Your task to perform on an android device: Open maps Image 0: 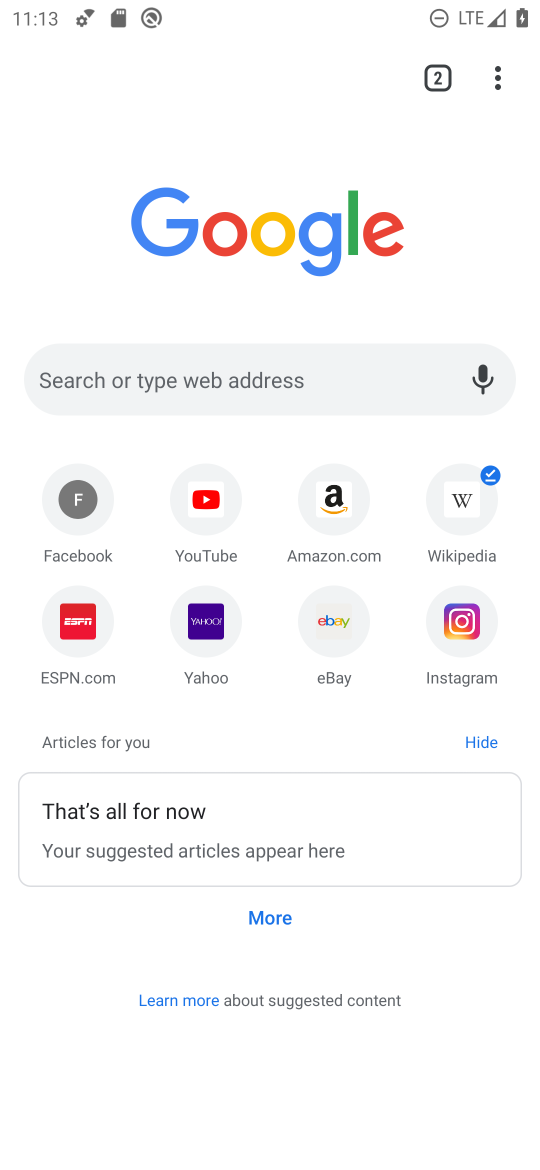
Step 0: press home button
Your task to perform on an android device: Open maps Image 1: 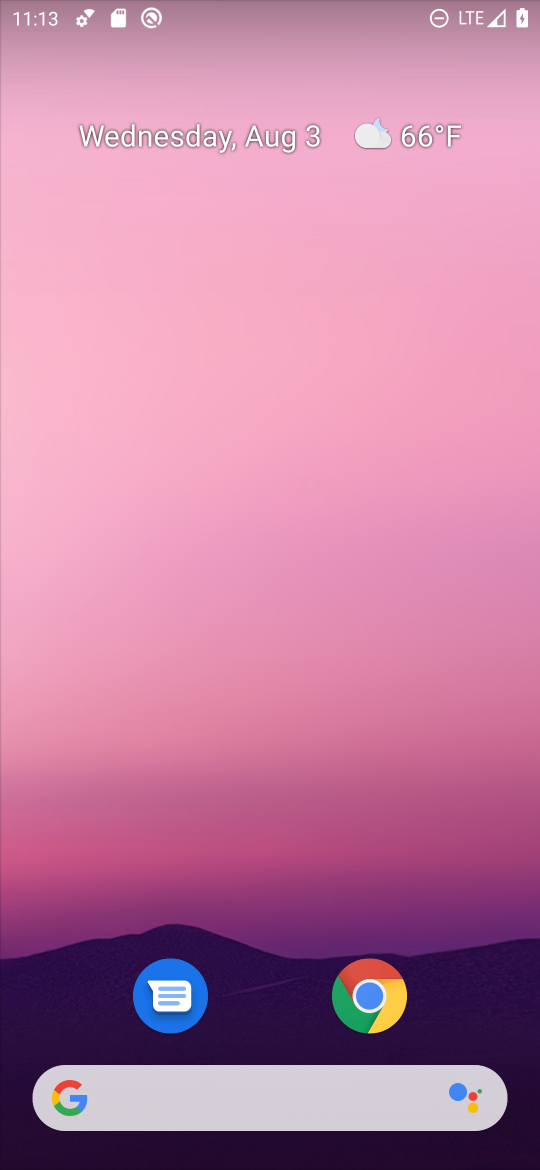
Step 1: drag from (301, 881) to (294, 10)
Your task to perform on an android device: Open maps Image 2: 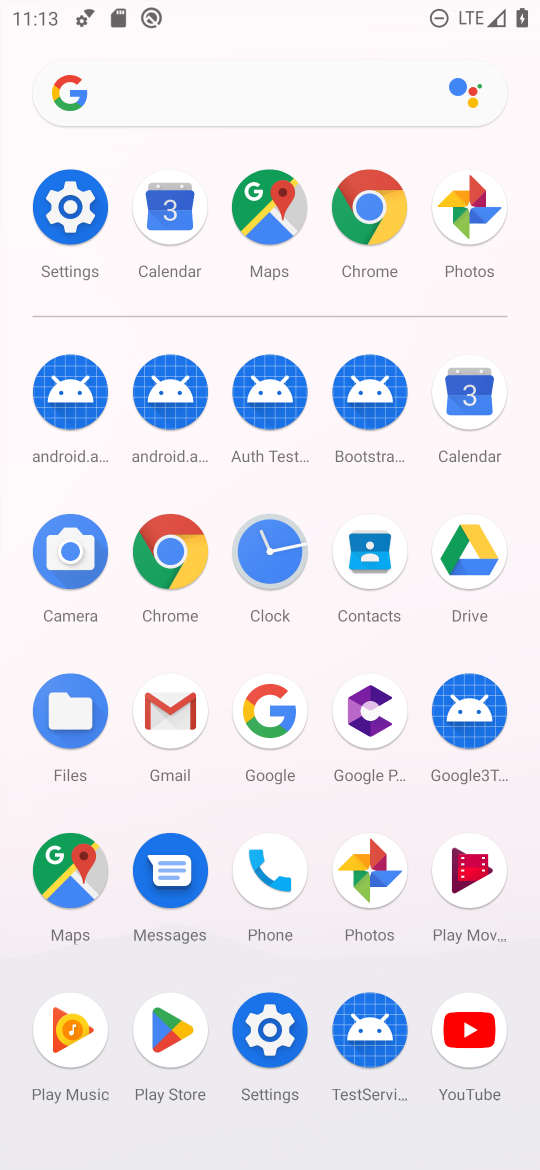
Step 2: click (284, 217)
Your task to perform on an android device: Open maps Image 3: 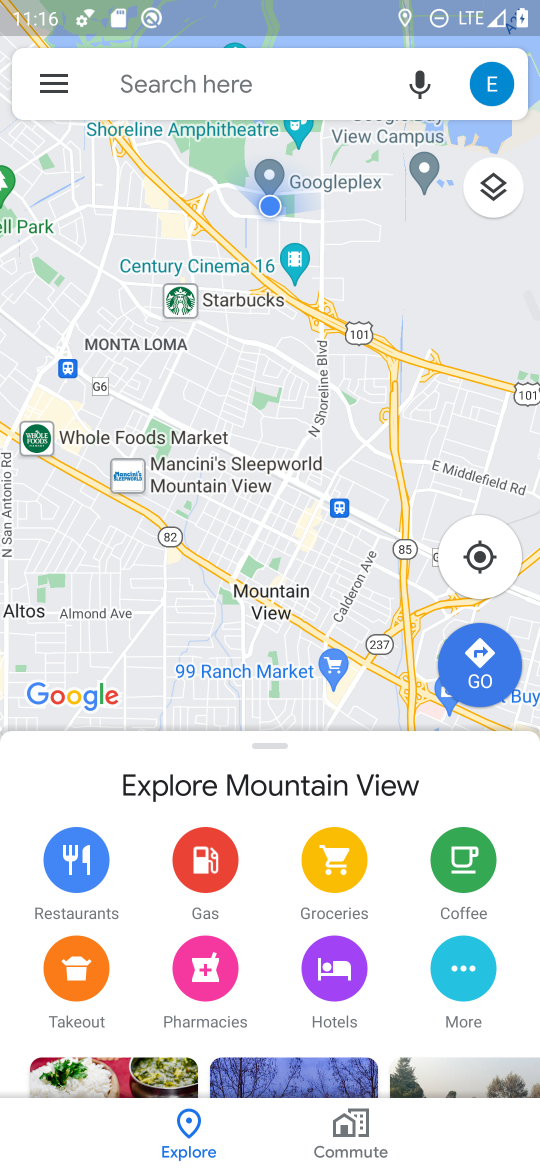
Step 3: task complete